Your task to perform on an android device: turn off javascript in the chrome app Image 0: 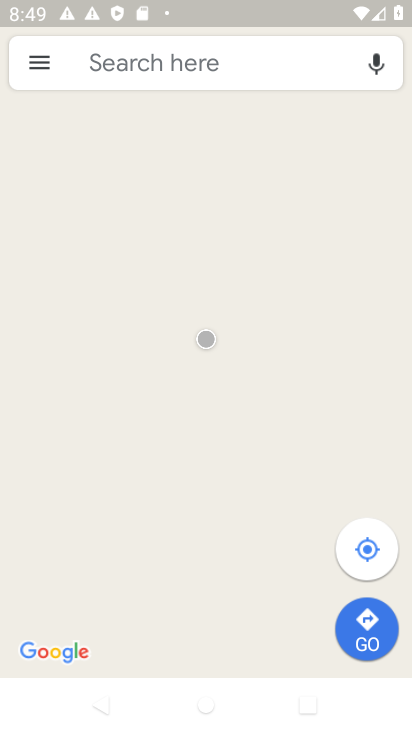
Step 0: press home button
Your task to perform on an android device: turn off javascript in the chrome app Image 1: 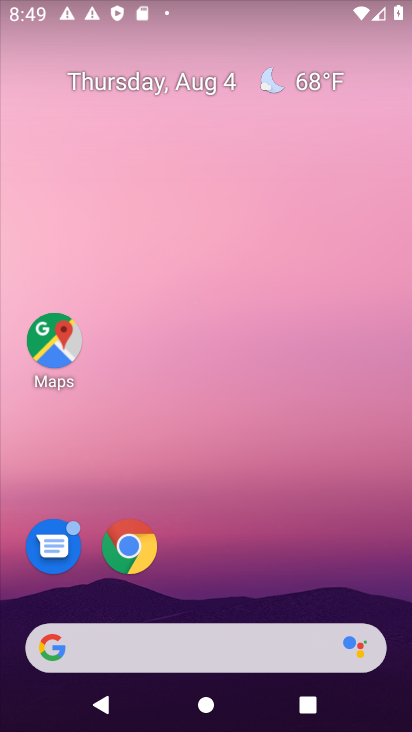
Step 1: click (115, 556)
Your task to perform on an android device: turn off javascript in the chrome app Image 2: 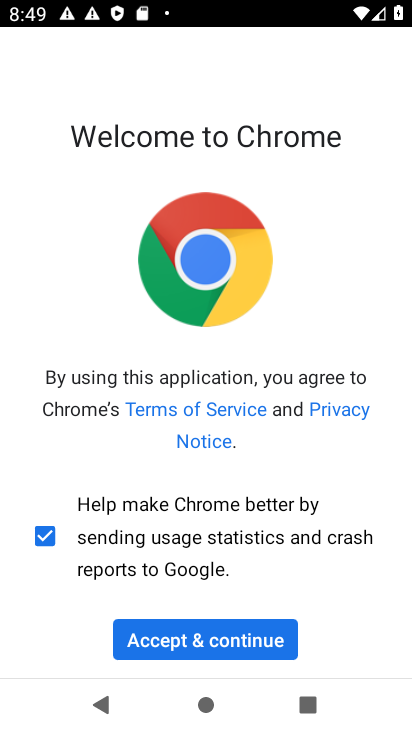
Step 2: click (216, 633)
Your task to perform on an android device: turn off javascript in the chrome app Image 3: 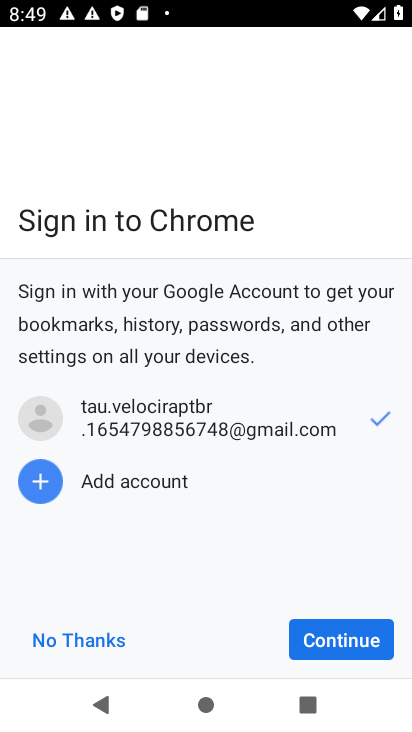
Step 3: click (331, 640)
Your task to perform on an android device: turn off javascript in the chrome app Image 4: 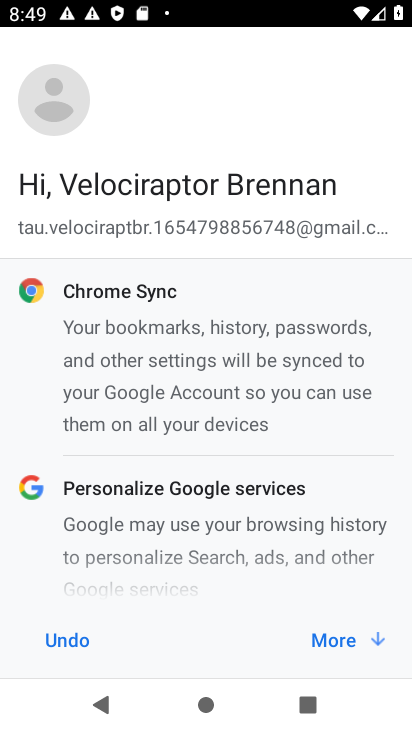
Step 4: click (364, 644)
Your task to perform on an android device: turn off javascript in the chrome app Image 5: 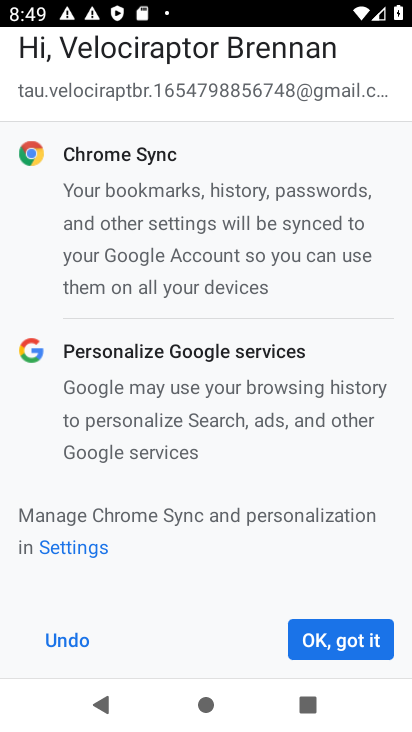
Step 5: click (364, 644)
Your task to perform on an android device: turn off javascript in the chrome app Image 6: 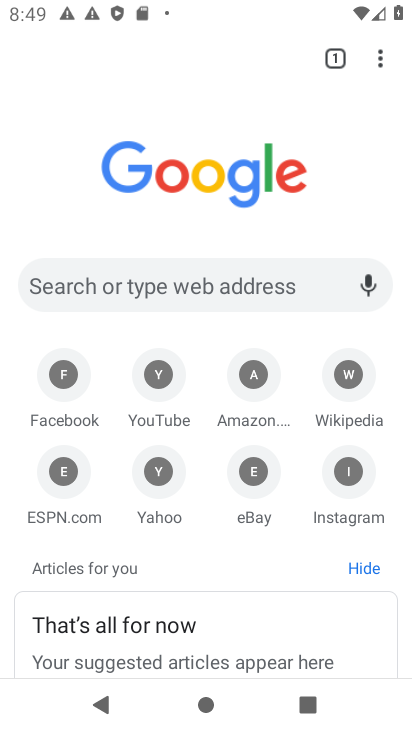
Step 6: drag from (378, 65) to (170, 491)
Your task to perform on an android device: turn off javascript in the chrome app Image 7: 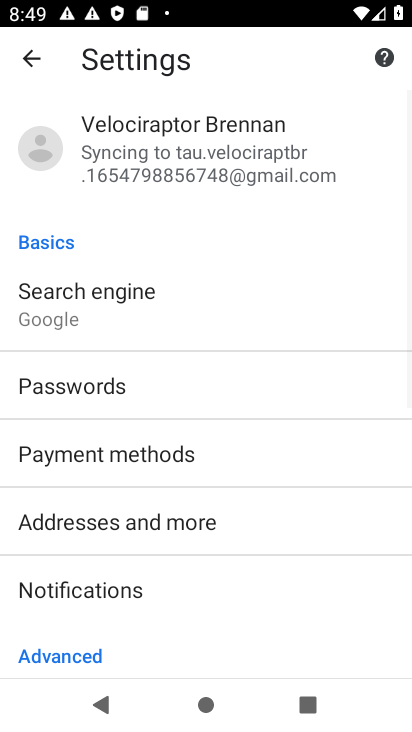
Step 7: drag from (313, 616) to (306, 158)
Your task to perform on an android device: turn off javascript in the chrome app Image 8: 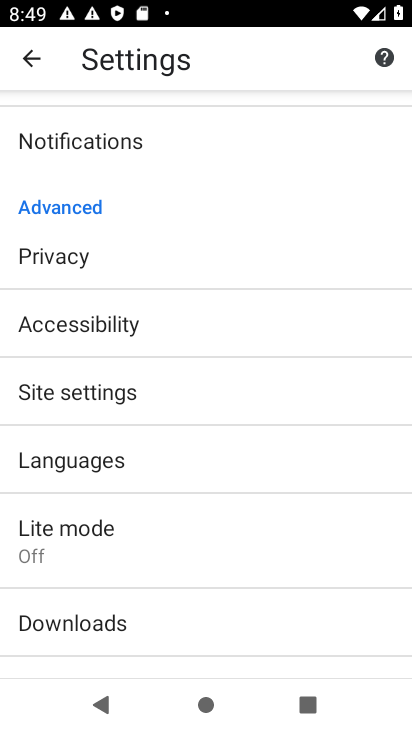
Step 8: click (75, 393)
Your task to perform on an android device: turn off javascript in the chrome app Image 9: 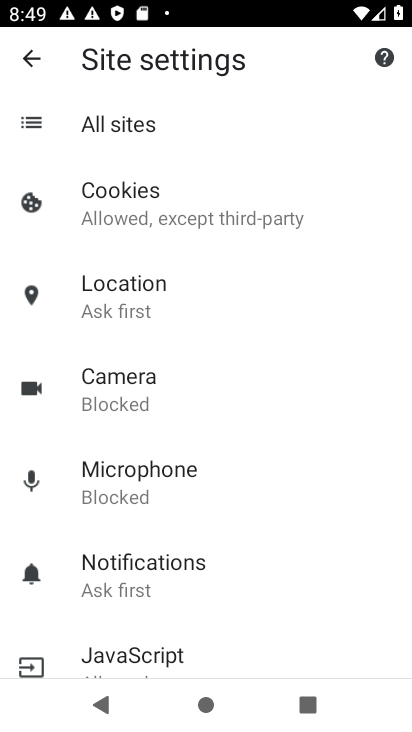
Step 9: click (143, 659)
Your task to perform on an android device: turn off javascript in the chrome app Image 10: 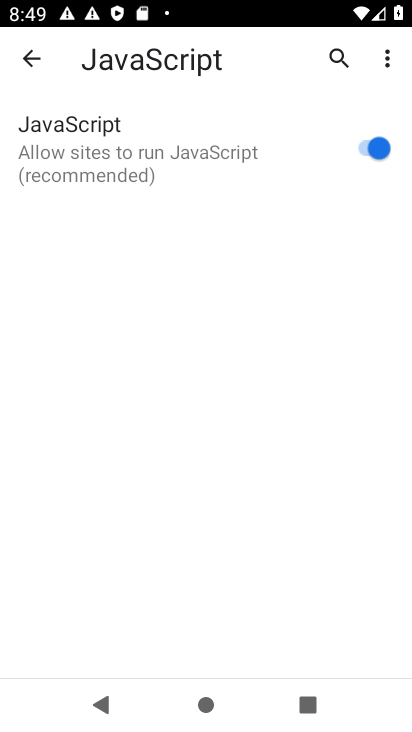
Step 10: click (378, 150)
Your task to perform on an android device: turn off javascript in the chrome app Image 11: 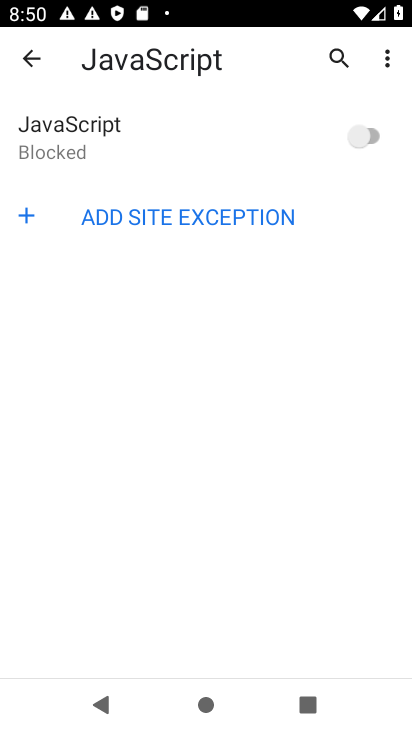
Step 11: task complete